Your task to perform on an android device: Open network settings Image 0: 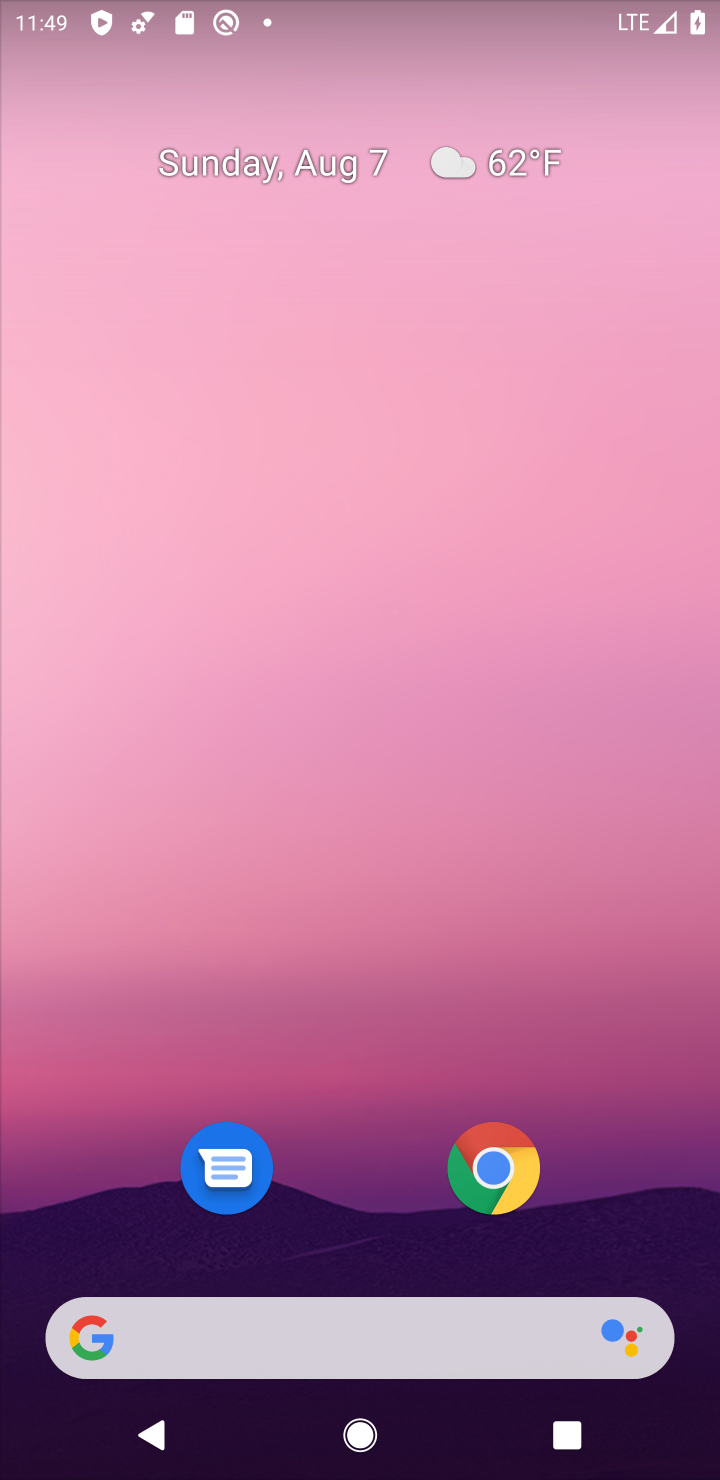
Step 0: drag from (312, 1248) to (448, 161)
Your task to perform on an android device: Open network settings Image 1: 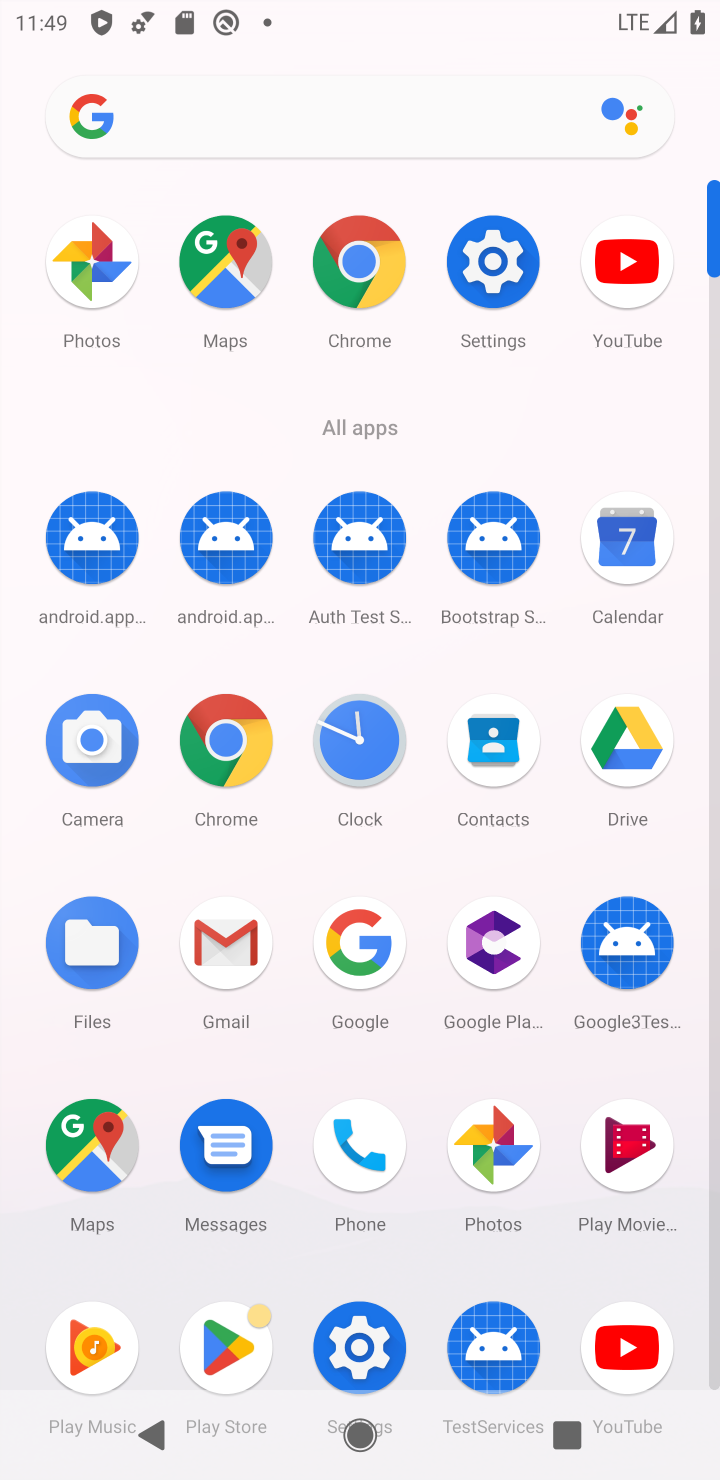
Step 1: click (489, 267)
Your task to perform on an android device: Open network settings Image 2: 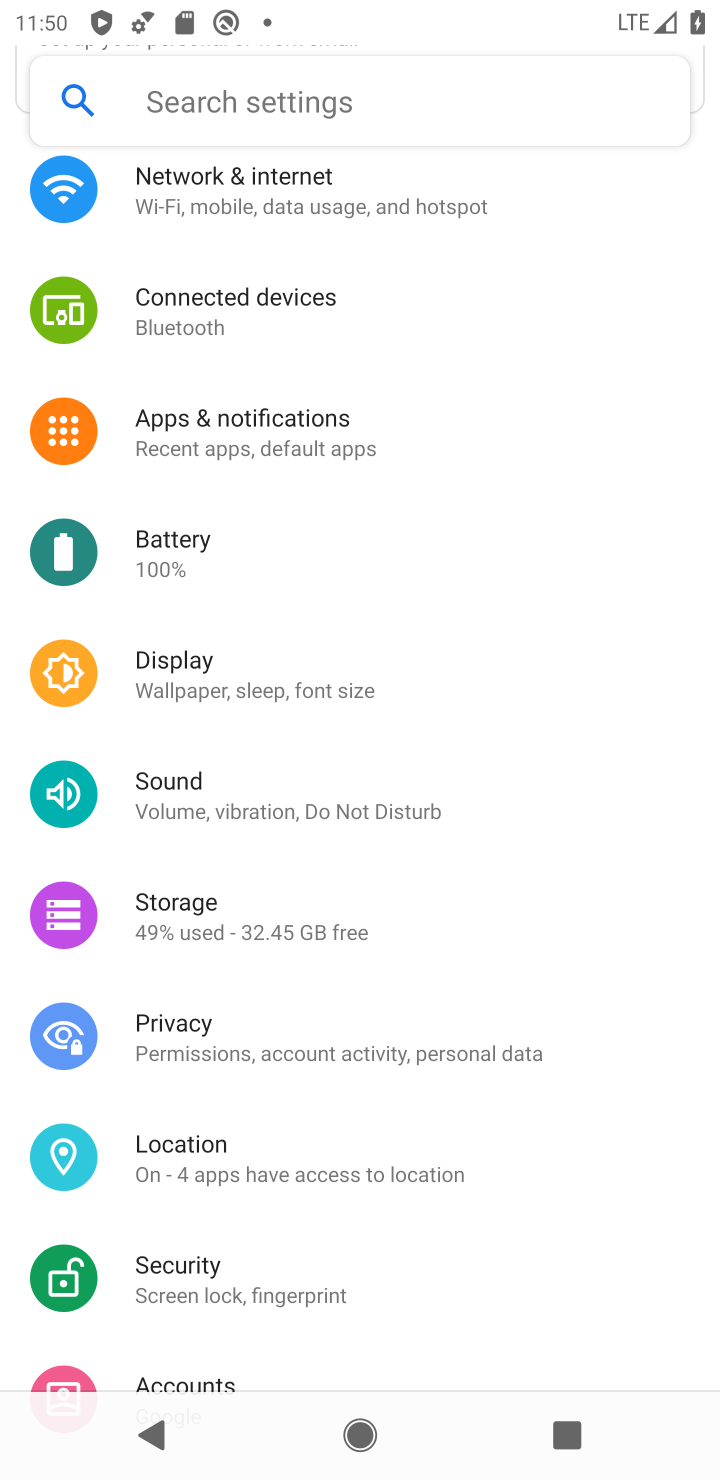
Step 2: click (209, 198)
Your task to perform on an android device: Open network settings Image 3: 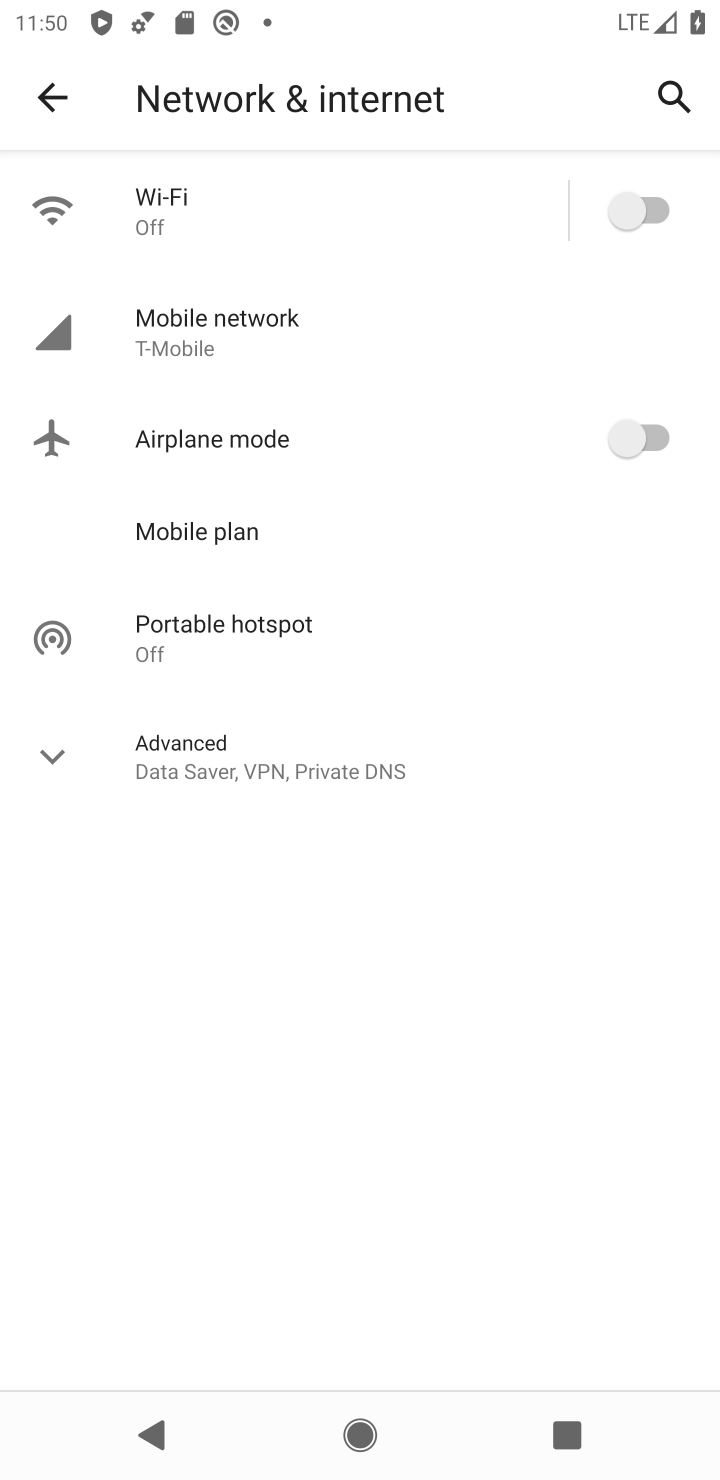
Step 3: task complete